Your task to perform on an android device: Go to eBay Image 0: 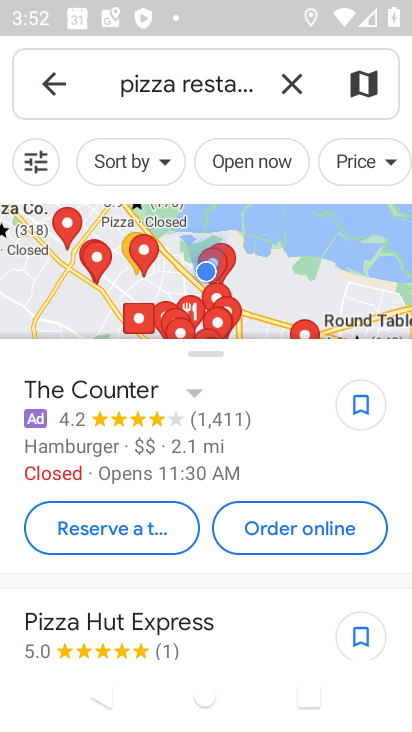
Step 0: press back button
Your task to perform on an android device: Go to eBay Image 1: 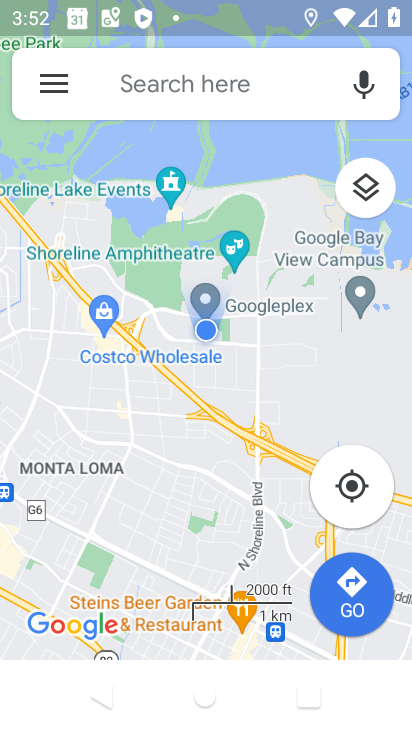
Step 1: press back button
Your task to perform on an android device: Go to eBay Image 2: 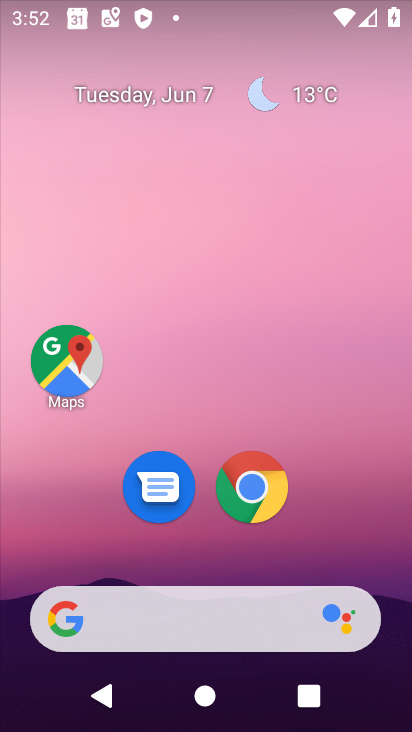
Step 2: click (274, 477)
Your task to perform on an android device: Go to eBay Image 3: 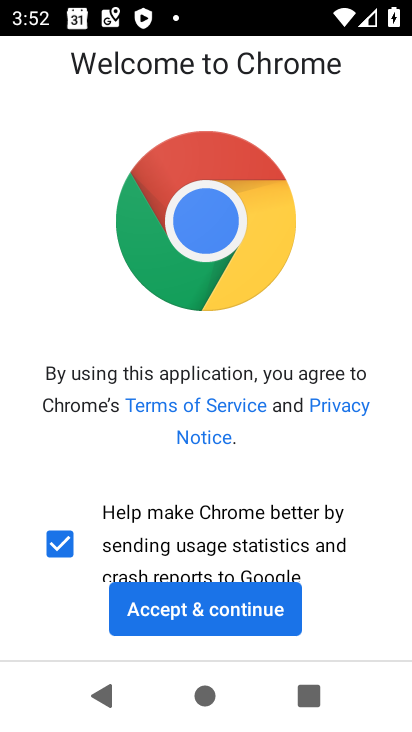
Step 3: click (118, 604)
Your task to perform on an android device: Go to eBay Image 4: 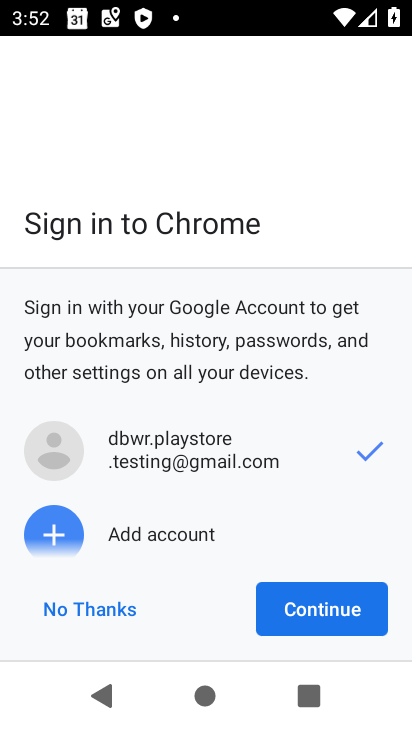
Step 4: click (316, 609)
Your task to perform on an android device: Go to eBay Image 5: 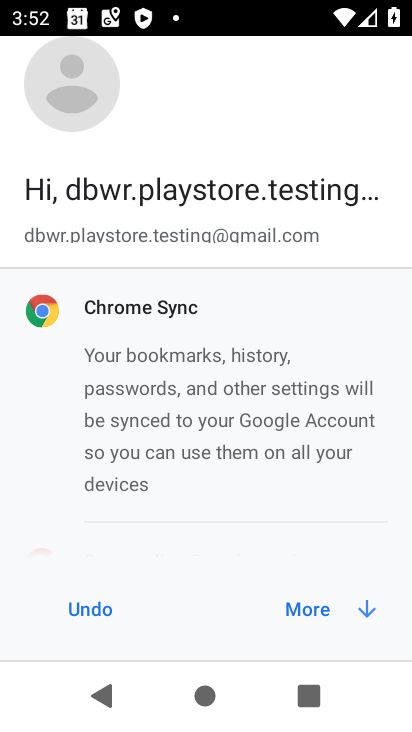
Step 5: click (301, 610)
Your task to perform on an android device: Go to eBay Image 6: 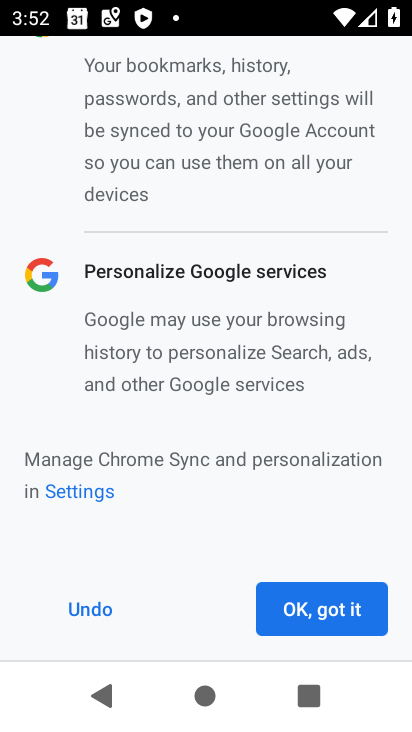
Step 6: click (328, 601)
Your task to perform on an android device: Go to eBay Image 7: 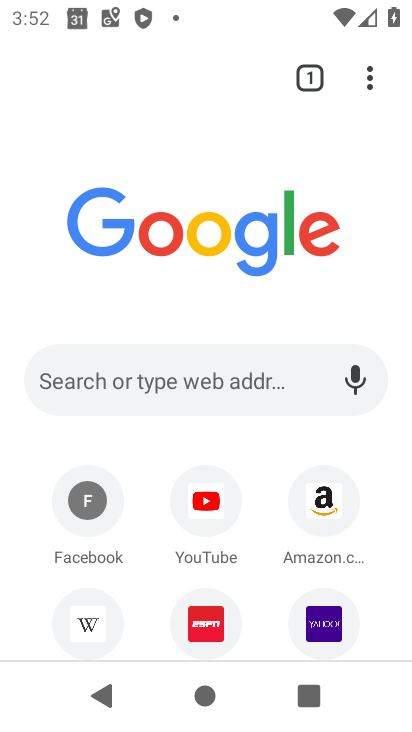
Step 7: click (158, 378)
Your task to perform on an android device: Go to eBay Image 8: 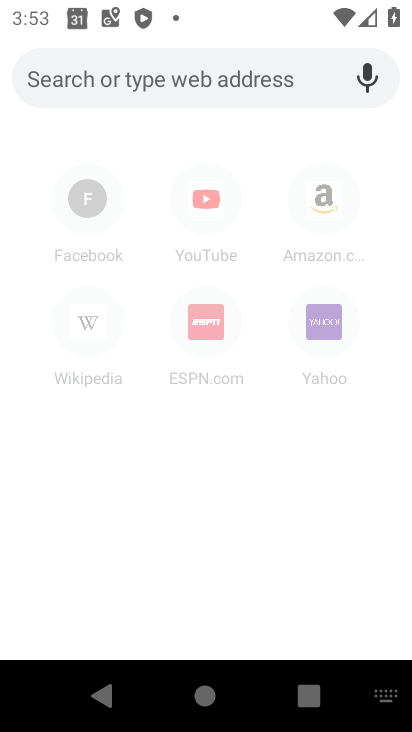
Step 8: type "ebay"
Your task to perform on an android device: Go to eBay Image 9: 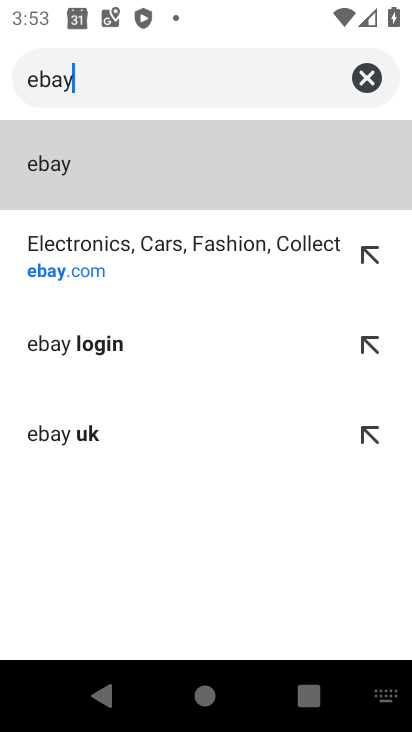
Step 9: click (139, 252)
Your task to perform on an android device: Go to eBay Image 10: 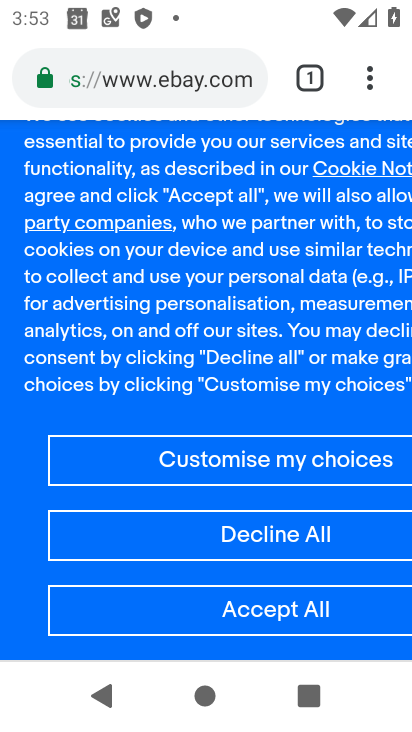
Step 10: task complete